Your task to perform on an android device: change text size in settings app Image 0: 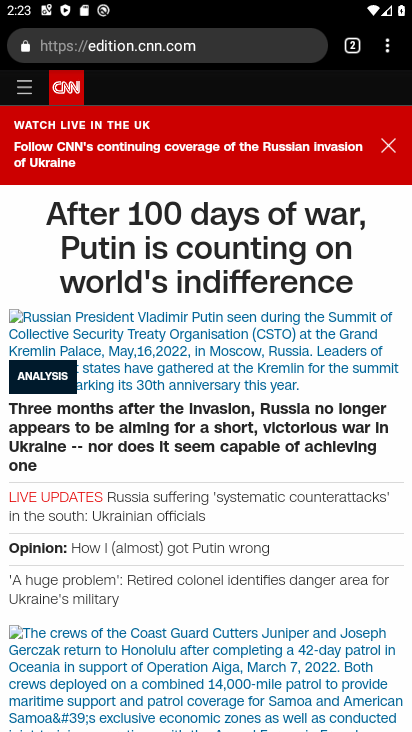
Step 0: press home button
Your task to perform on an android device: change text size in settings app Image 1: 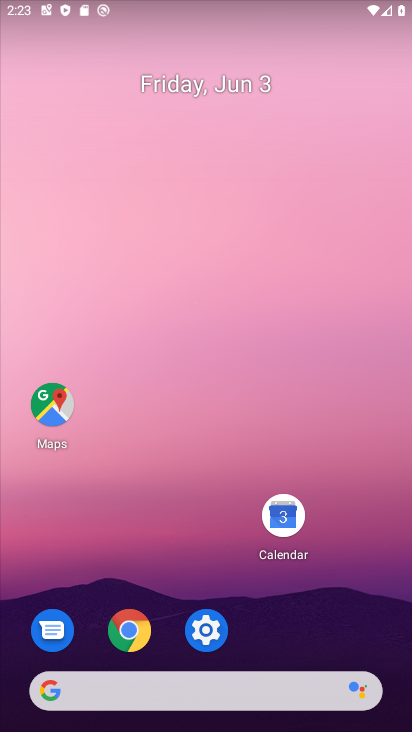
Step 1: drag from (227, 256) to (188, 61)
Your task to perform on an android device: change text size in settings app Image 2: 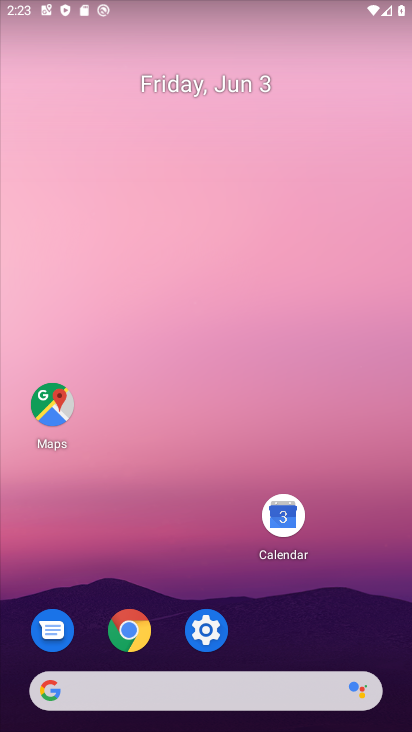
Step 2: drag from (191, 710) to (112, 12)
Your task to perform on an android device: change text size in settings app Image 3: 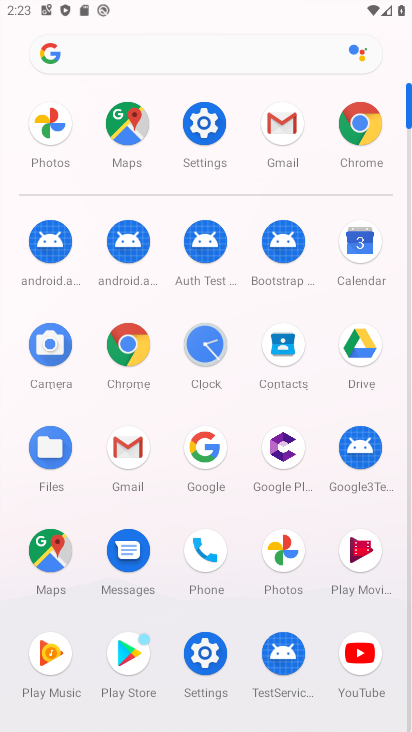
Step 3: click (198, 130)
Your task to perform on an android device: change text size in settings app Image 4: 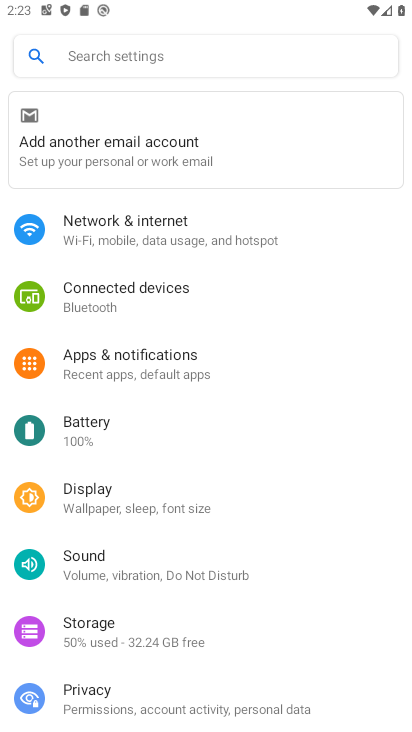
Step 4: click (147, 57)
Your task to perform on an android device: change text size in settings app Image 5: 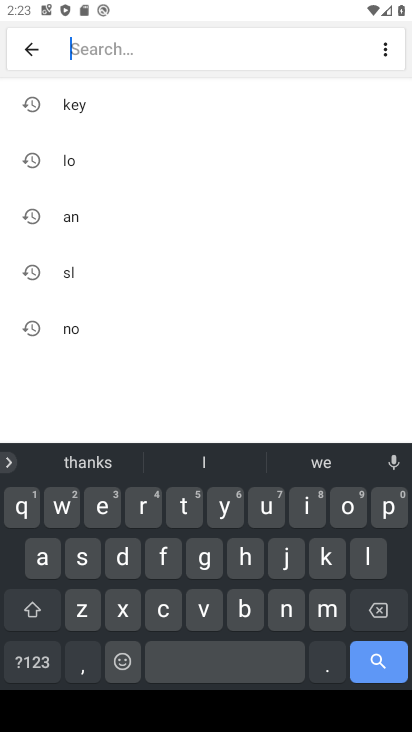
Step 5: click (189, 504)
Your task to perform on an android device: change text size in settings app Image 6: 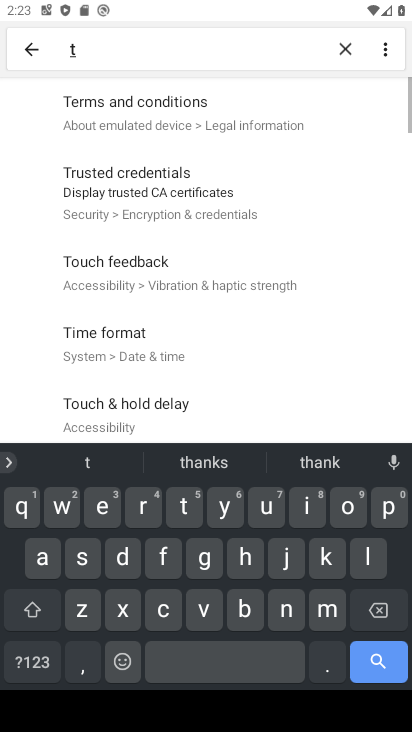
Step 6: click (103, 519)
Your task to perform on an android device: change text size in settings app Image 7: 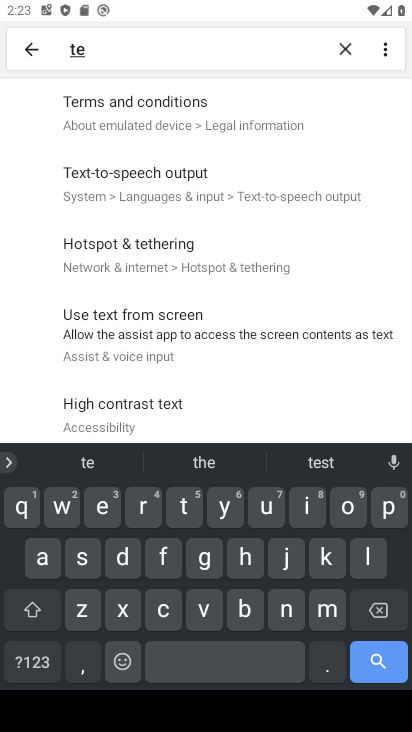
Step 7: click (385, 621)
Your task to perform on an android device: change text size in settings app Image 8: 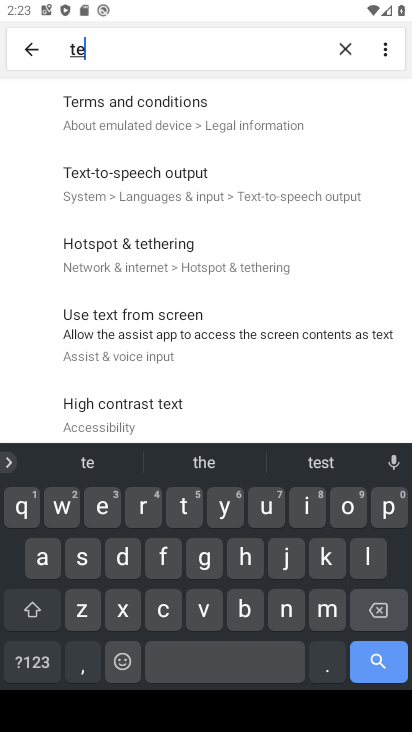
Step 8: click (385, 621)
Your task to perform on an android device: change text size in settings app Image 9: 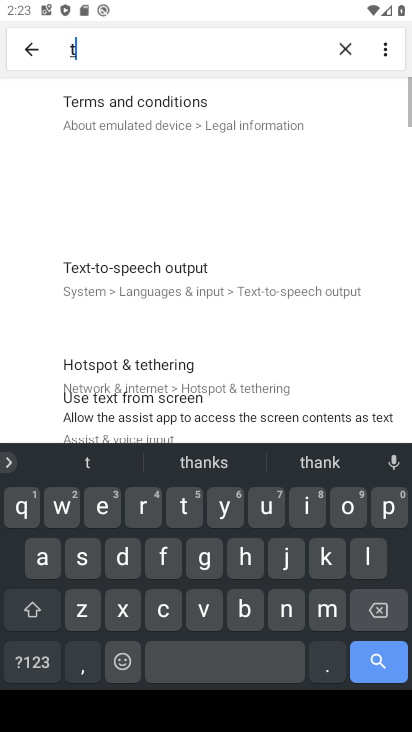
Step 9: click (385, 621)
Your task to perform on an android device: change text size in settings app Image 10: 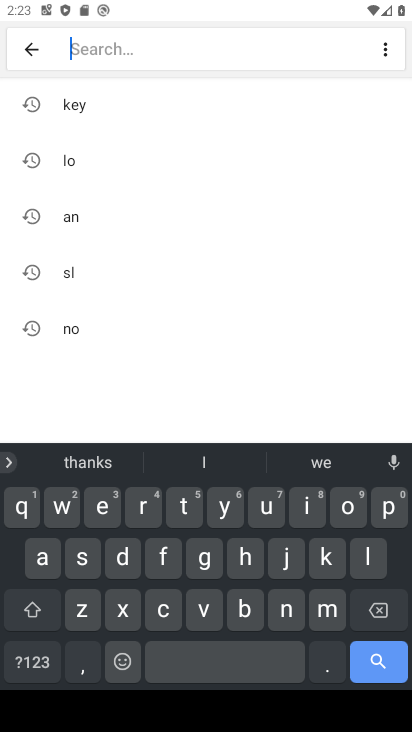
Step 10: click (84, 559)
Your task to perform on an android device: change text size in settings app Image 11: 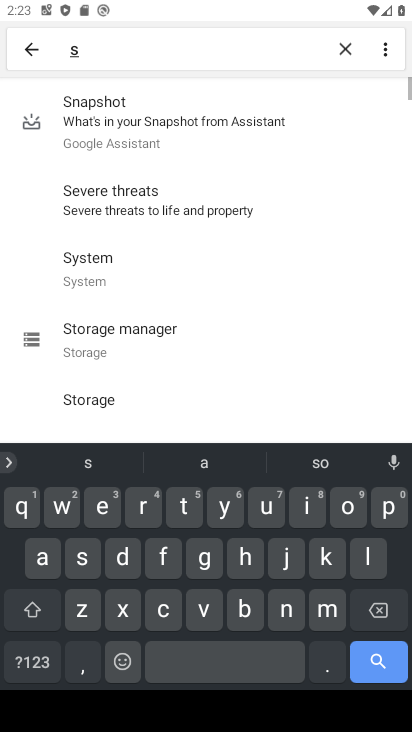
Step 11: click (310, 502)
Your task to perform on an android device: change text size in settings app Image 12: 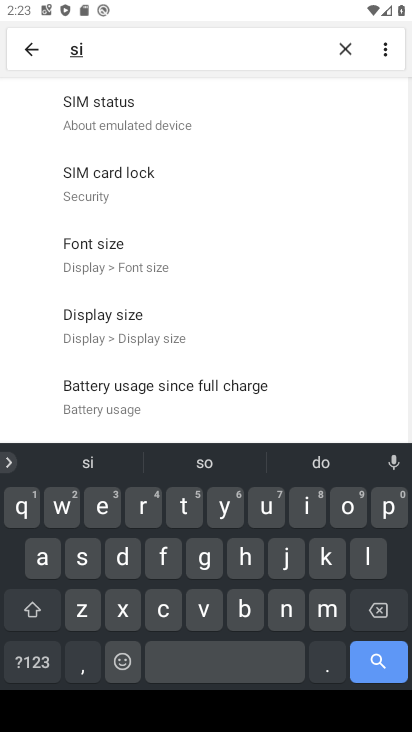
Step 12: click (91, 617)
Your task to perform on an android device: change text size in settings app Image 13: 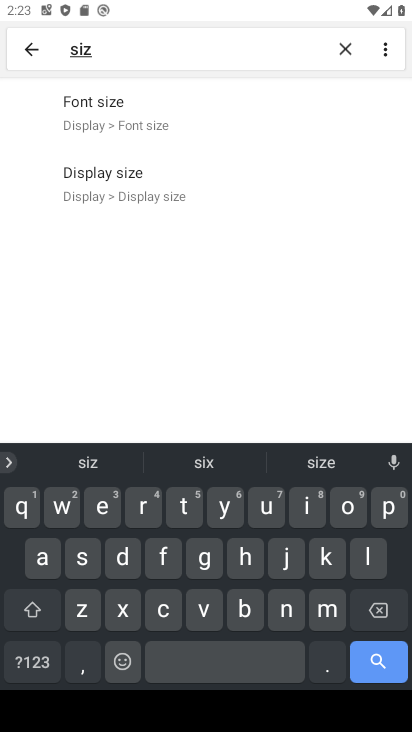
Step 13: click (180, 129)
Your task to perform on an android device: change text size in settings app Image 14: 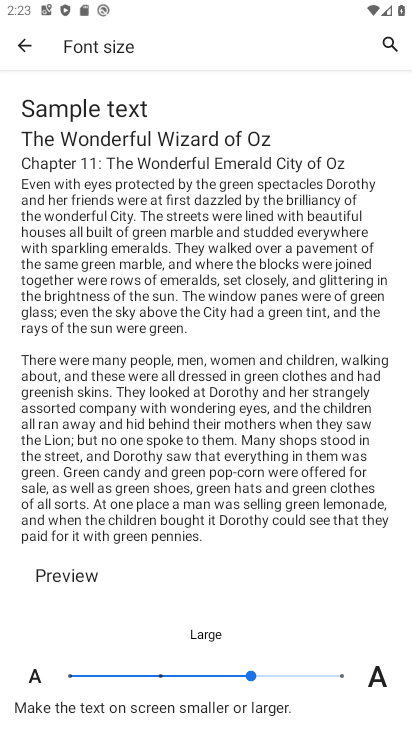
Step 14: click (320, 672)
Your task to perform on an android device: change text size in settings app Image 15: 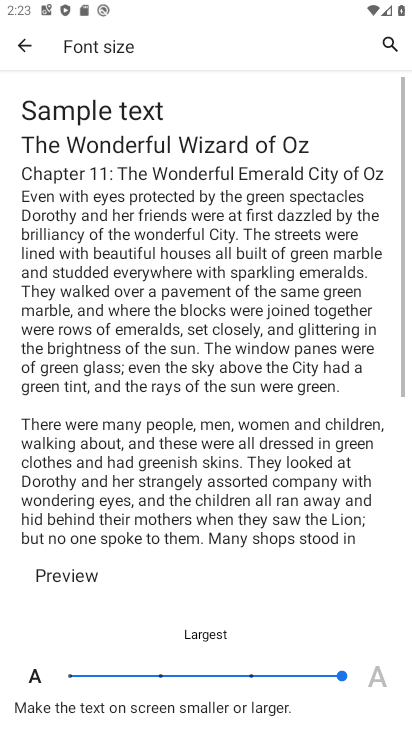
Step 15: task complete